Your task to perform on an android device: Open Youtube and go to the subscriptions tab Image 0: 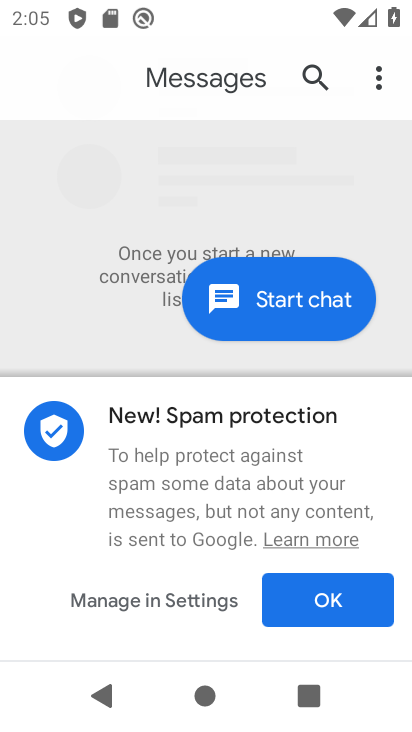
Step 0: press home button
Your task to perform on an android device: Open Youtube and go to the subscriptions tab Image 1: 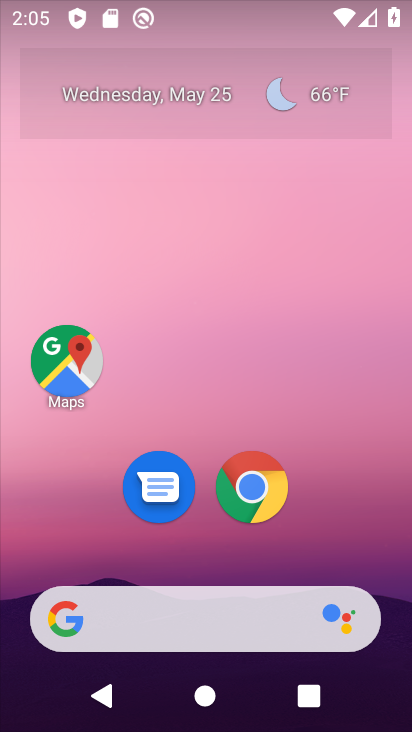
Step 1: drag from (193, 562) to (124, 1)
Your task to perform on an android device: Open Youtube and go to the subscriptions tab Image 2: 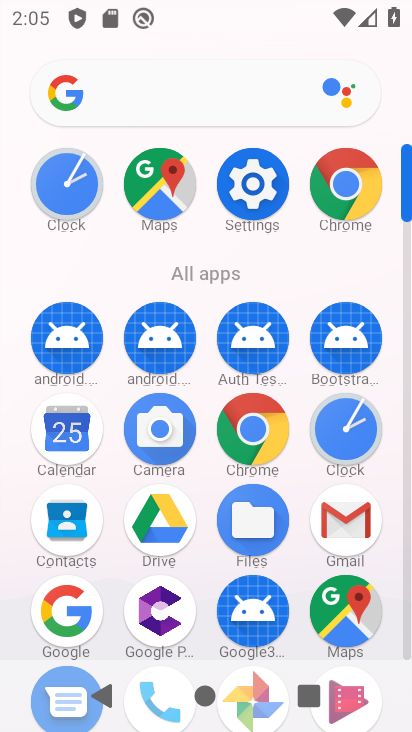
Step 2: drag from (299, 630) to (334, 171)
Your task to perform on an android device: Open Youtube and go to the subscriptions tab Image 3: 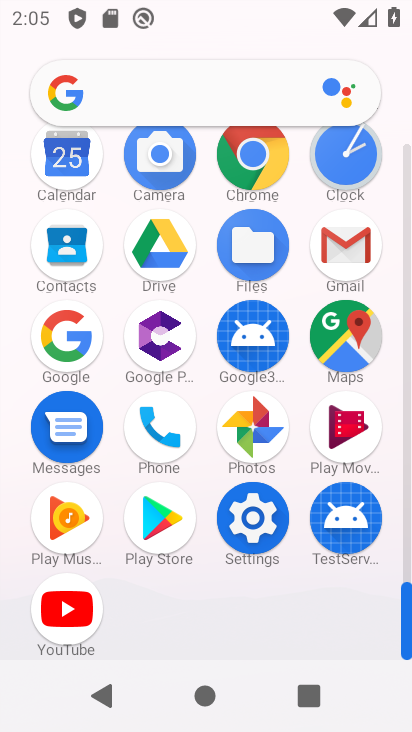
Step 3: click (61, 620)
Your task to perform on an android device: Open Youtube and go to the subscriptions tab Image 4: 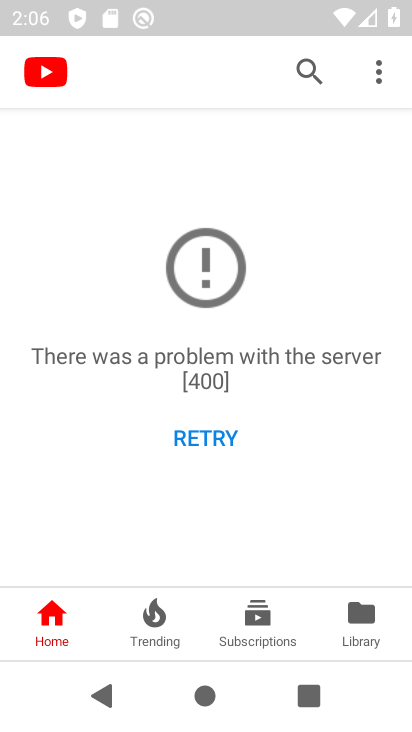
Step 4: click (275, 624)
Your task to perform on an android device: Open Youtube and go to the subscriptions tab Image 5: 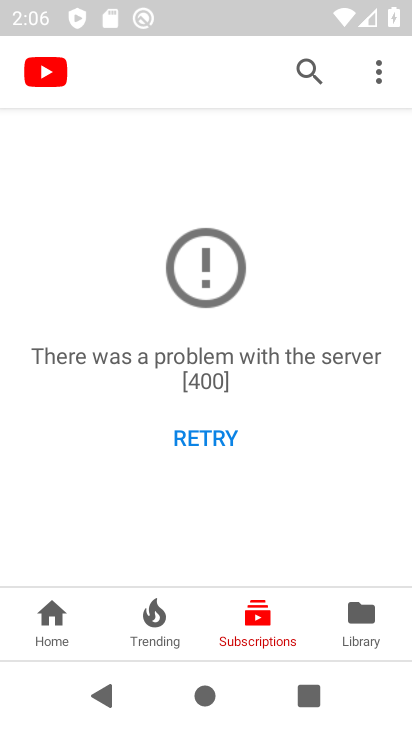
Step 5: task complete